Your task to perform on an android device: Go to Yahoo.com Image 0: 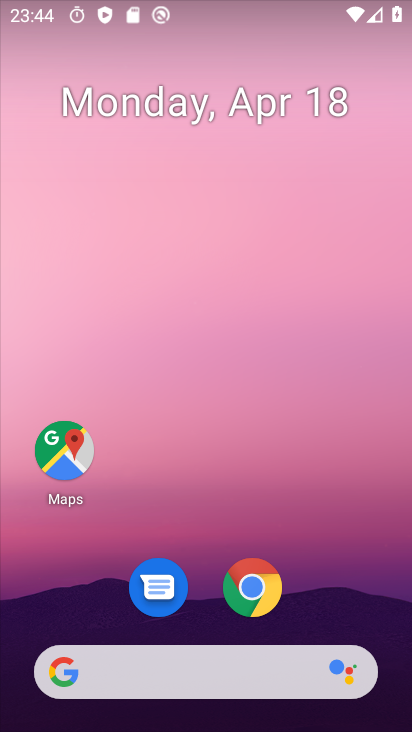
Step 0: drag from (354, 587) to (356, 181)
Your task to perform on an android device: Go to Yahoo.com Image 1: 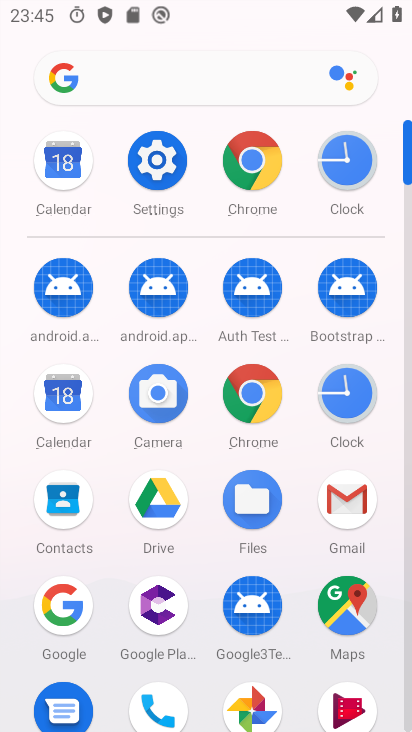
Step 1: click (261, 168)
Your task to perform on an android device: Go to Yahoo.com Image 2: 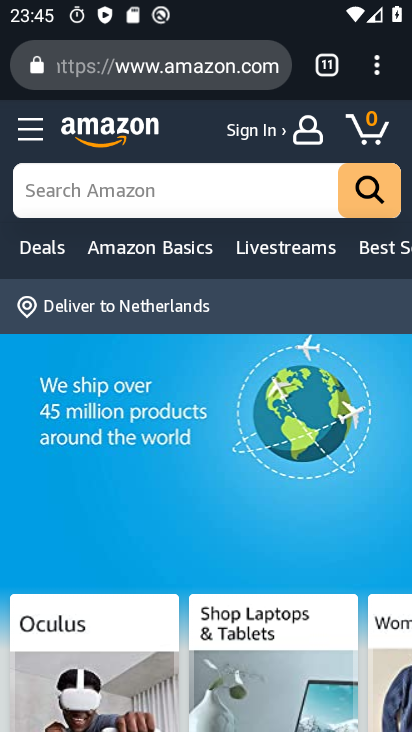
Step 2: click (323, 72)
Your task to perform on an android device: Go to Yahoo.com Image 3: 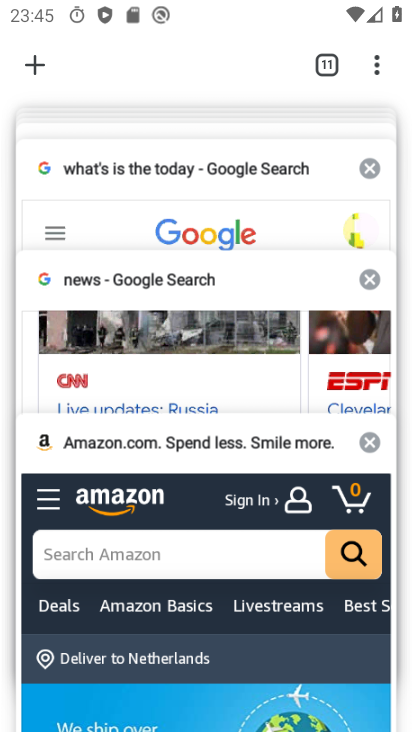
Step 3: click (36, 65)
Your task to perform on an android device: Go to Yahoo.com Image 4: 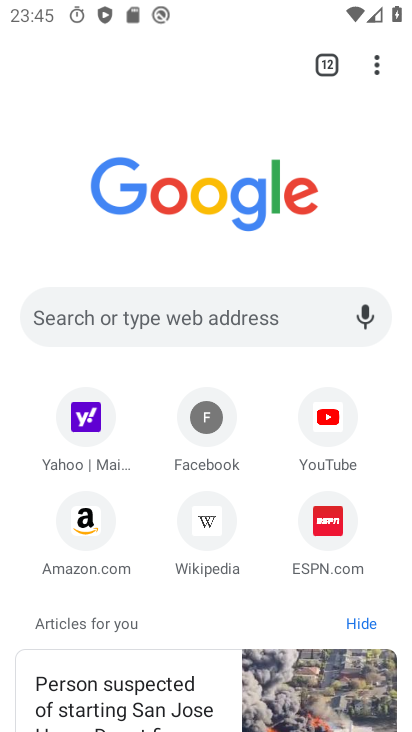
Step 4: click (84, 423)
Your task to perform on an android device: Go to Yahoo.com Image 5: 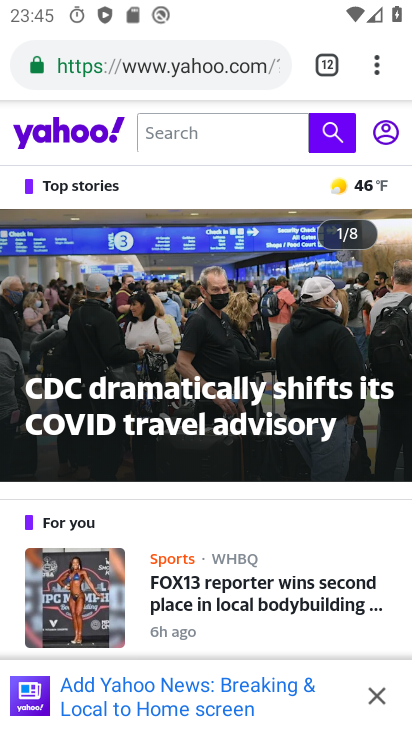
Step 5: task complete